Your task to perform on an android device: all mails in gmail Image 0: 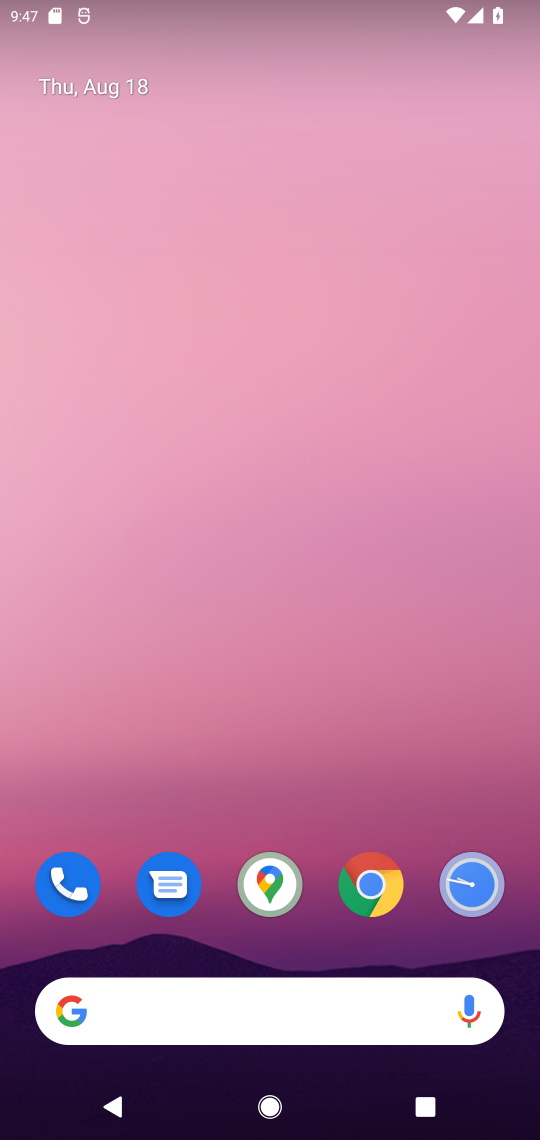
Step 0: drag from (310, 953) to (346, 11)
Your task to perform on an android device: all mails in gmail Image 1: 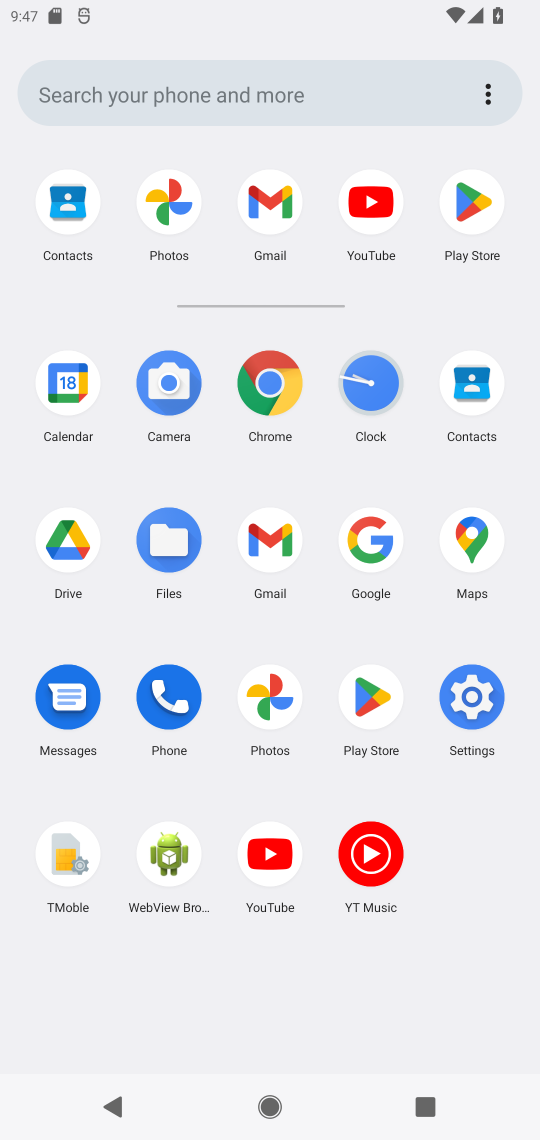
Step 1: click (265, 186)
Your task to perform on an android device: all mails in gmail Image 2: 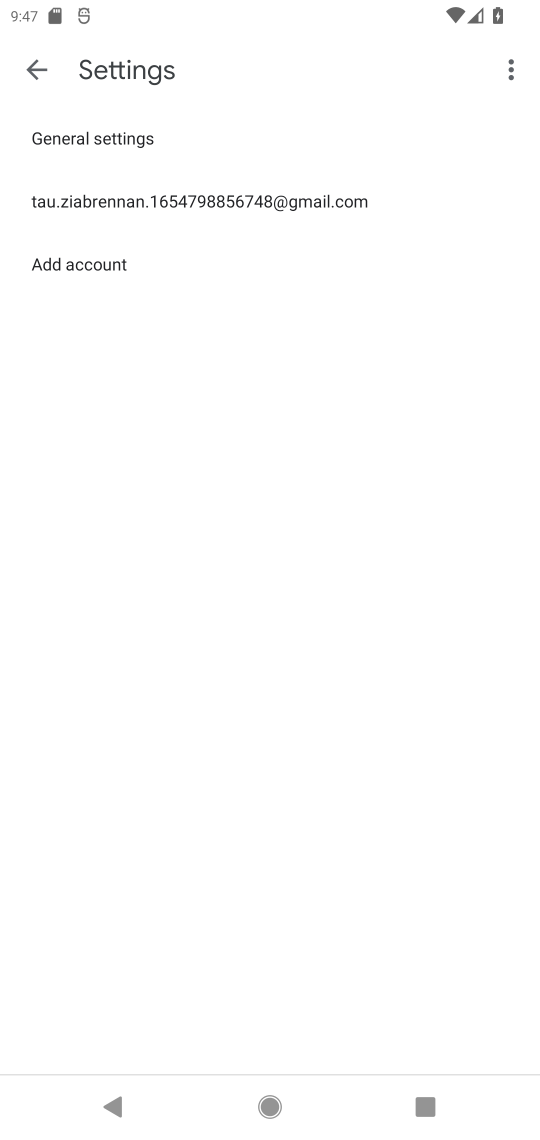
Step 2: click (44, 81)
Your task to perform on an android device: all mails in gmail Image 3: 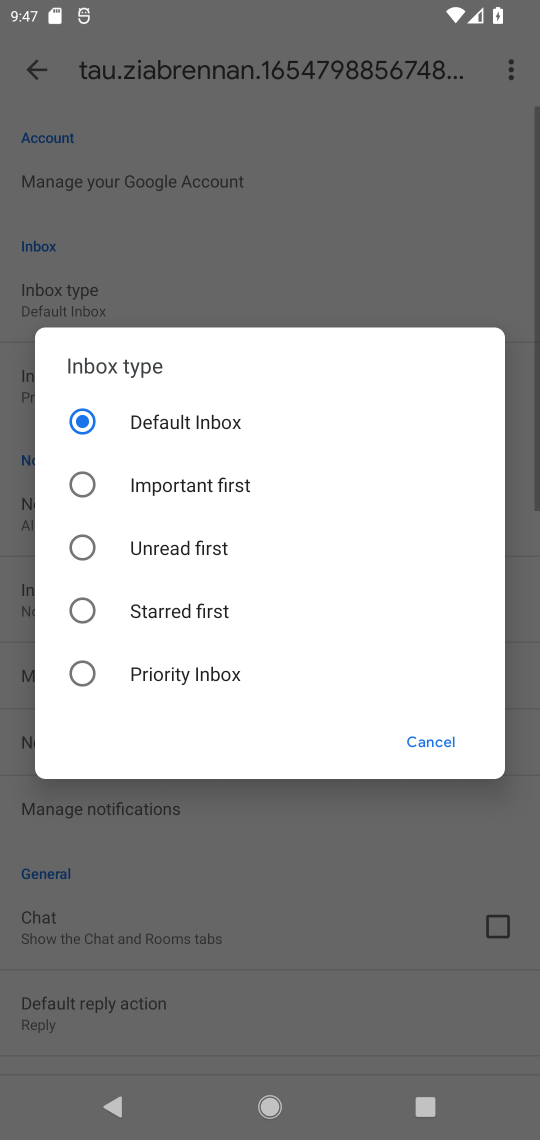
Step 3: click (52, 91)
Your task to perform on an android device: all mails in gmail Image 4: 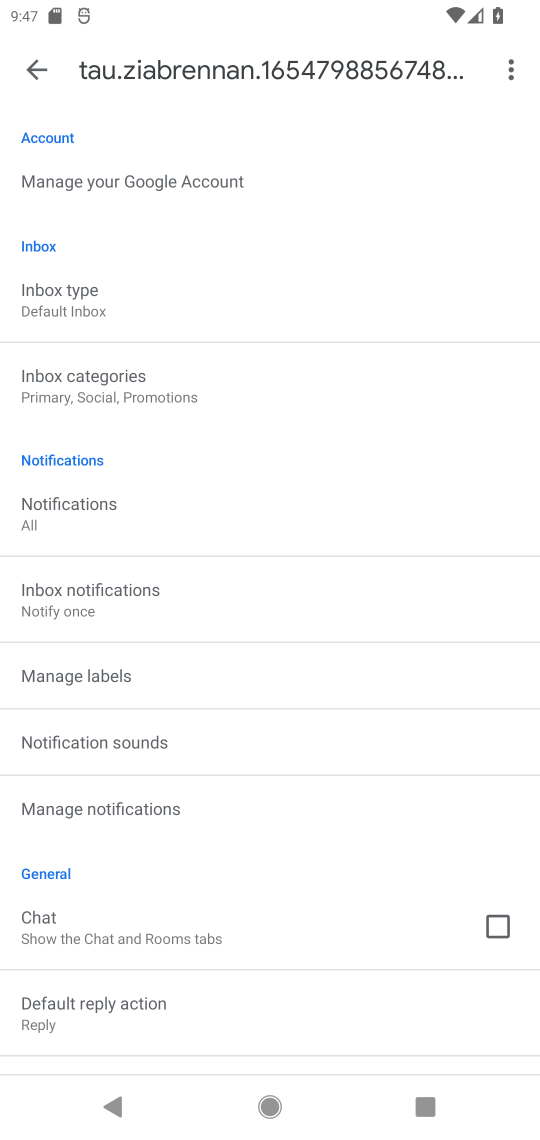
Step 4: click (47, 80)
Your task to perform on an android device: all mails in gmail Image 5: 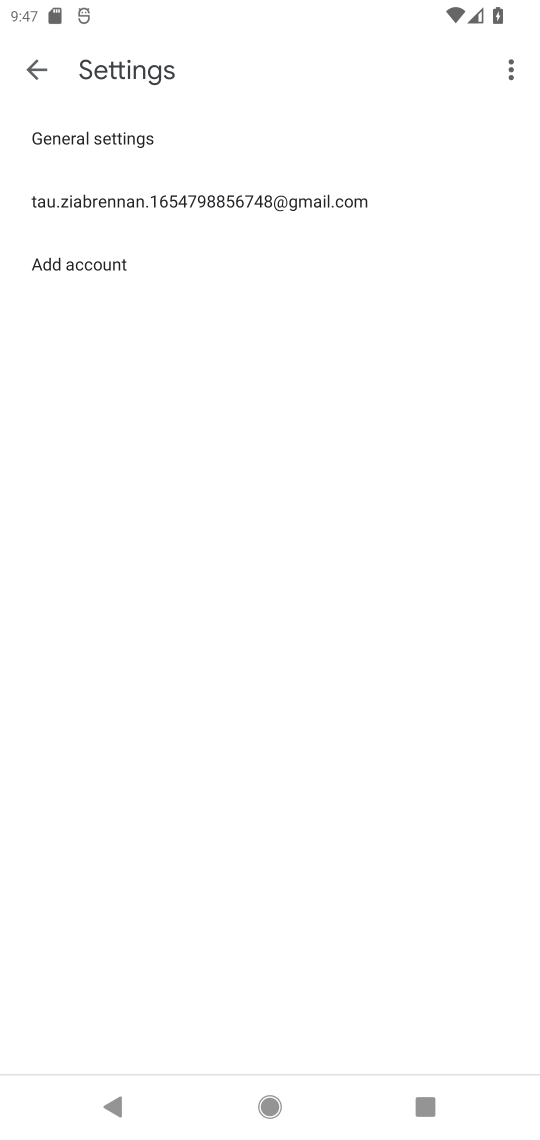
Step 5: click (47, 80)
Your task to perform on an android device: all mails in gmail Image 6: 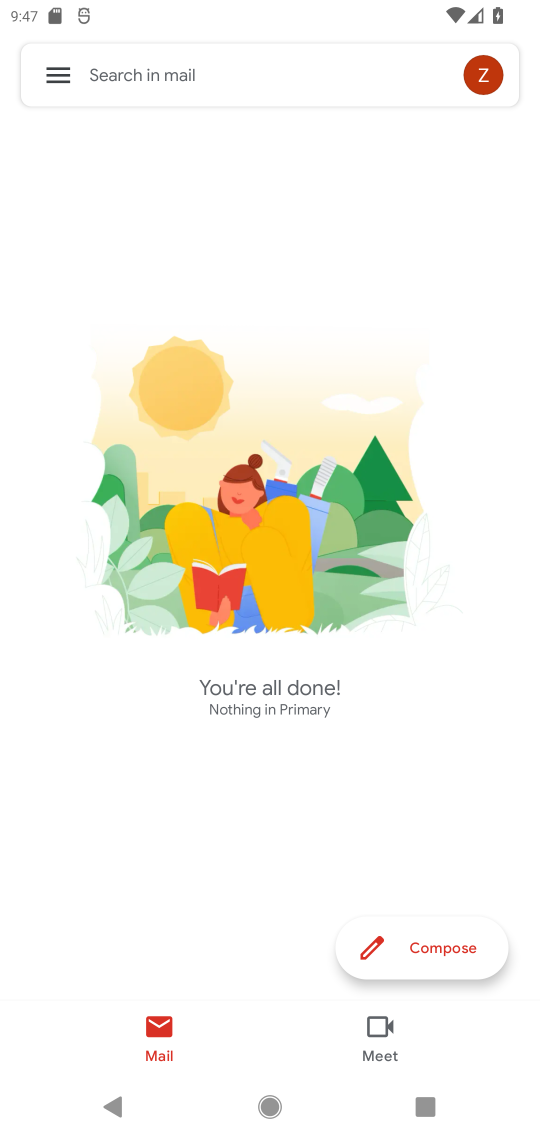
Step 6: click (47, 80)
Your task to perform on an android device: all mails in gmail Image 7: 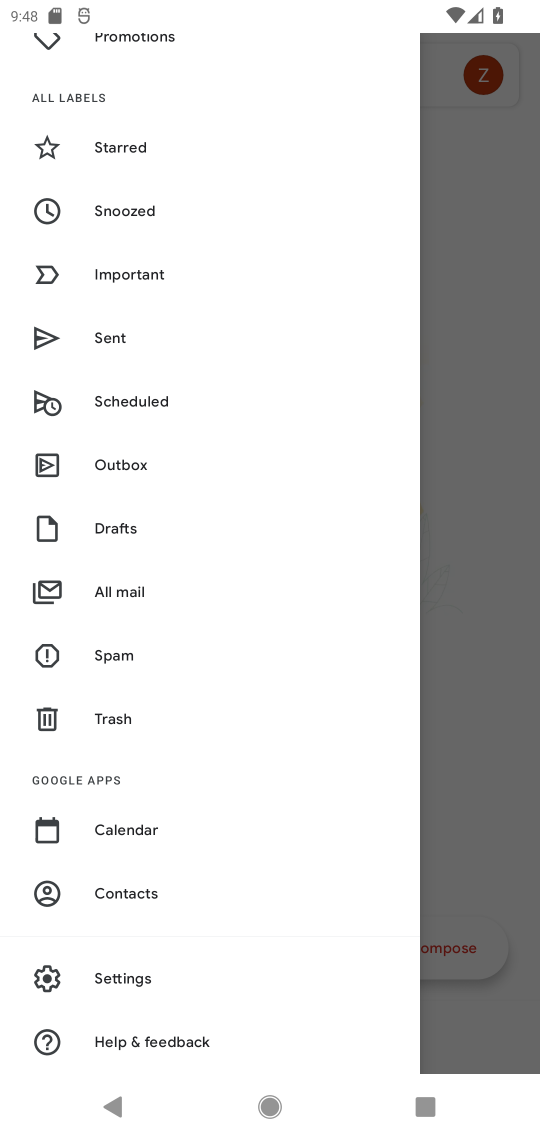
Step 7: click (91, 594)
Your task to perform on an android device: all mails in gmail Image 8: 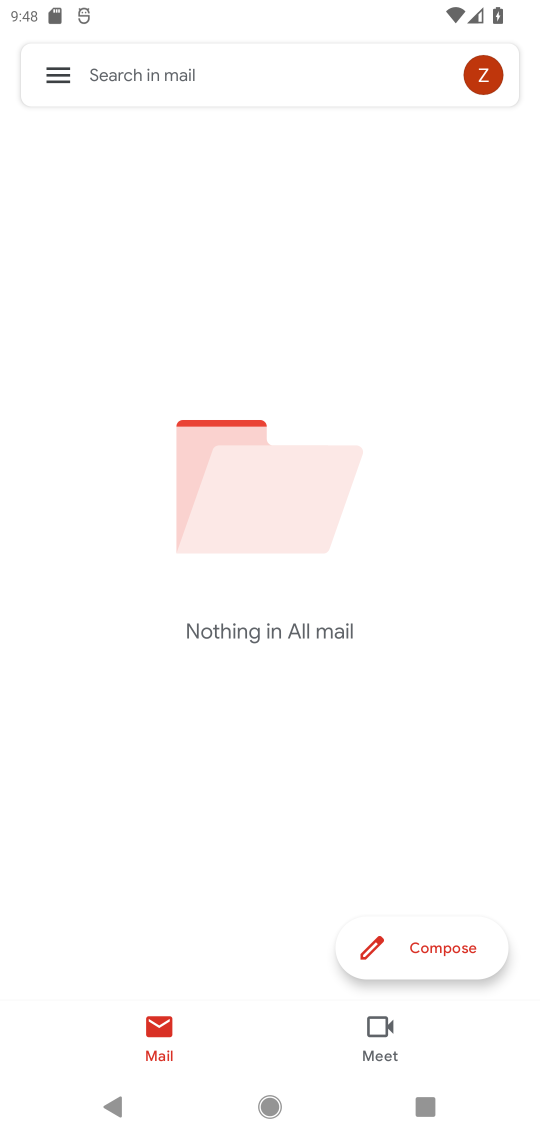
Step 8: task complete